Your task to perform on an android device: open app "Nova Launcher" (install if not already installed), go to login, and select forgot password Image 0: 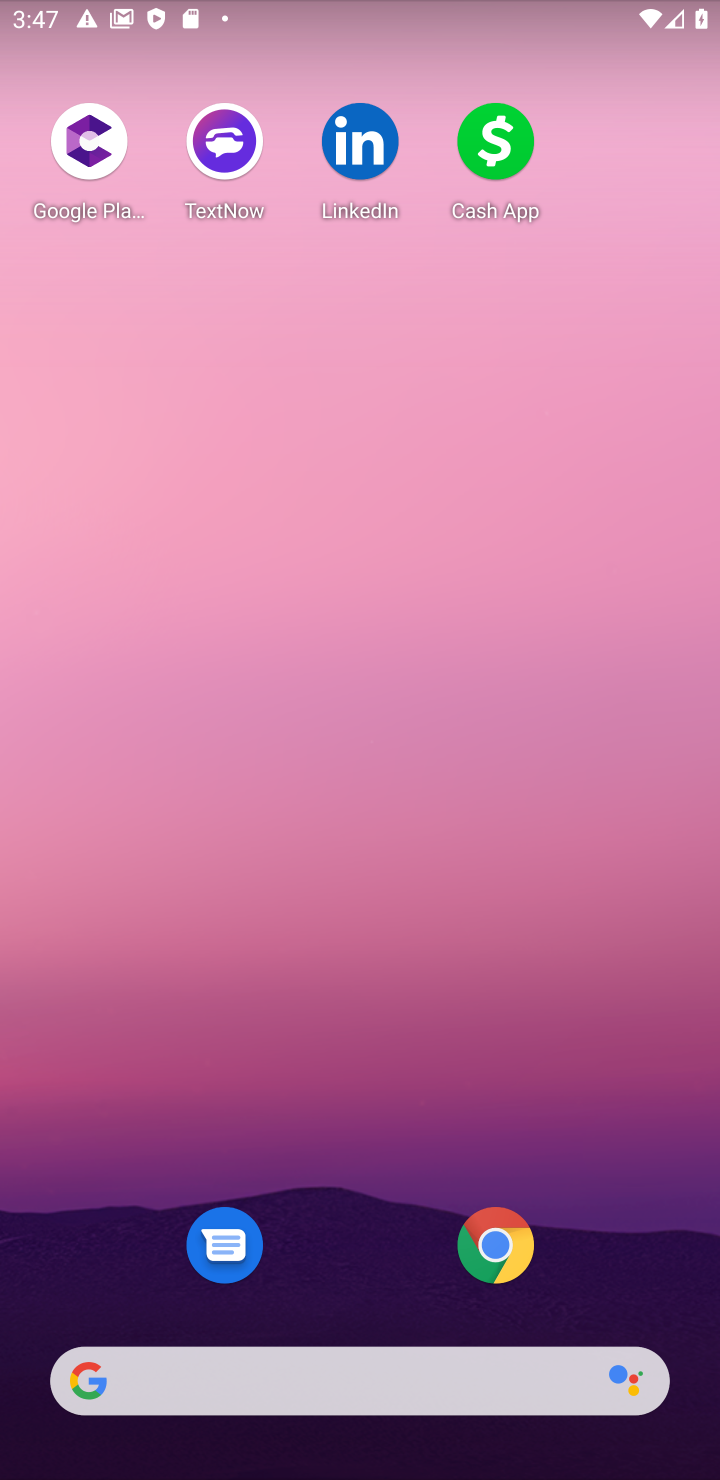
Step 0: press home button
Your task to perform on an android device: open app "Nova Launcher" (install if not already installed), go to login, and select forgot password Image 1: 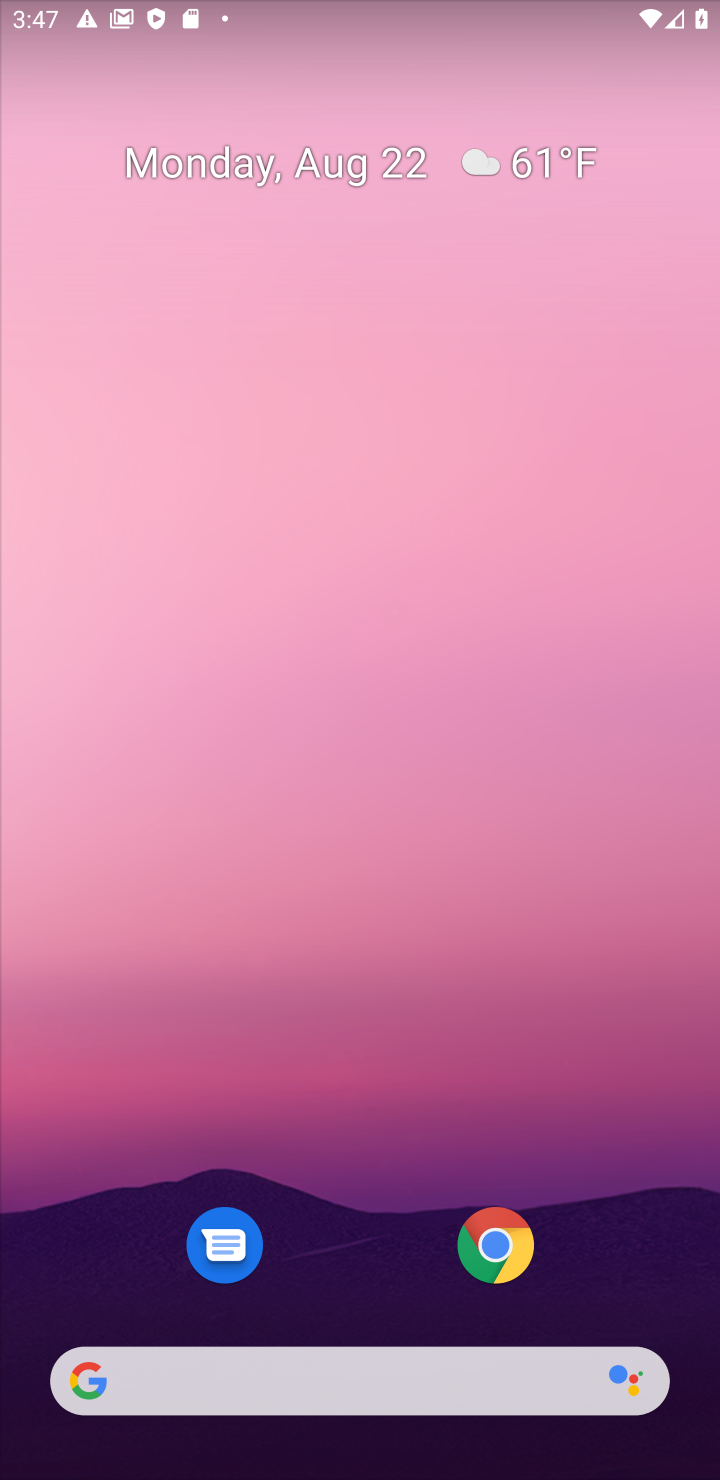
Step 1: drag from (644, 1276) to (679, 364)
Your task to perform on an android device: open app "Nova Launcher" (install if not already installed), go to login, and select forgot password Image 2: 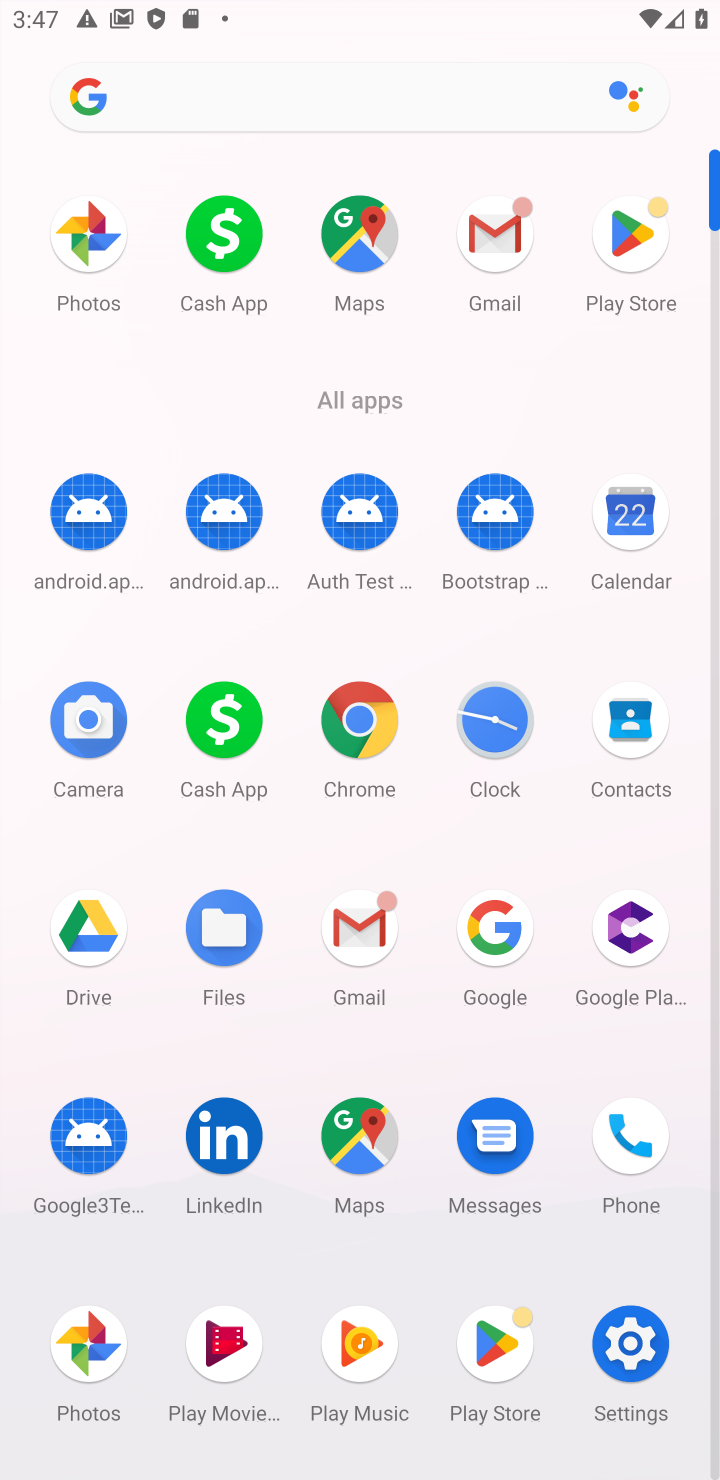
Step 2: click (625, 234)
Your task to perform on an android device: open app "Nova Launcher" (install if not already installed), go to login, and select forgot password Image 3: 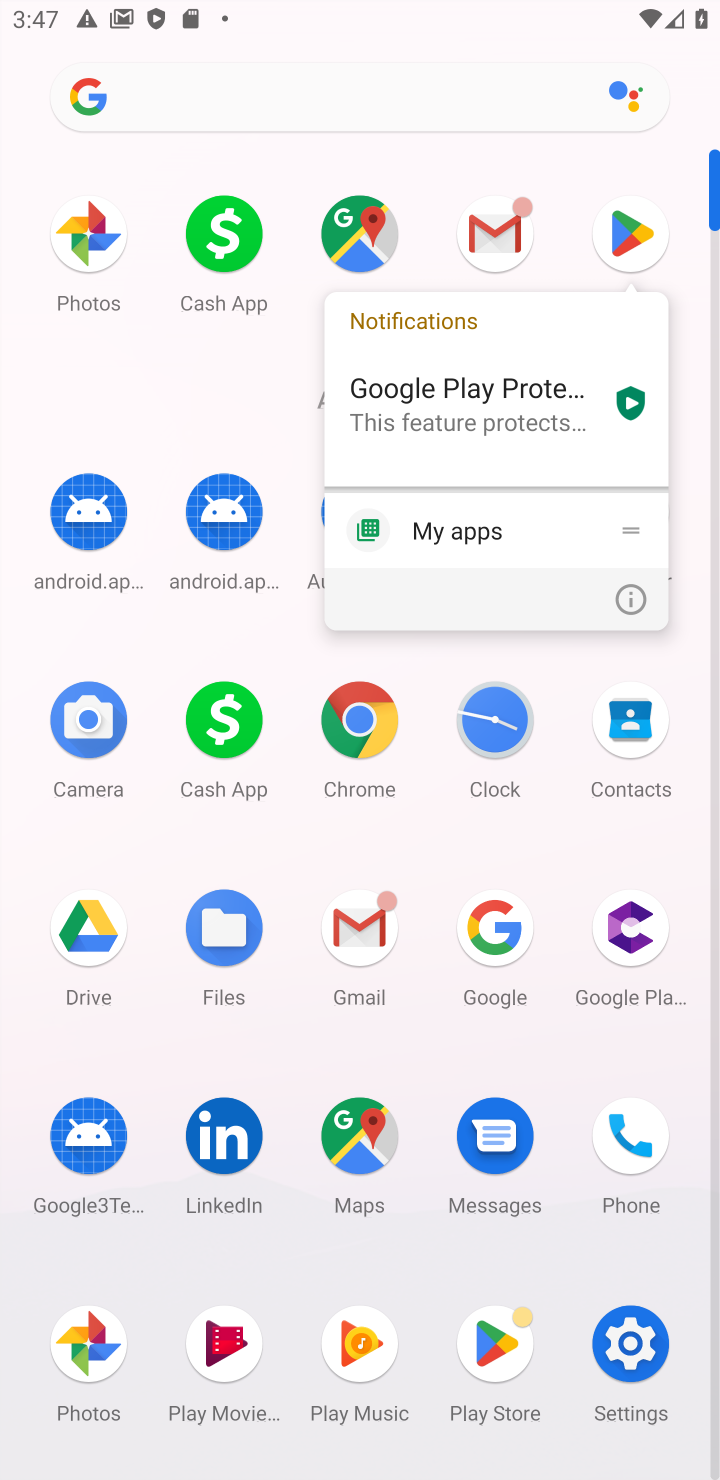
Step 3: click (615, 219)
Your task to perform on an android device: open app "Nova Launcher" (install if not already installed), go to login, and select forgot password Image 4: 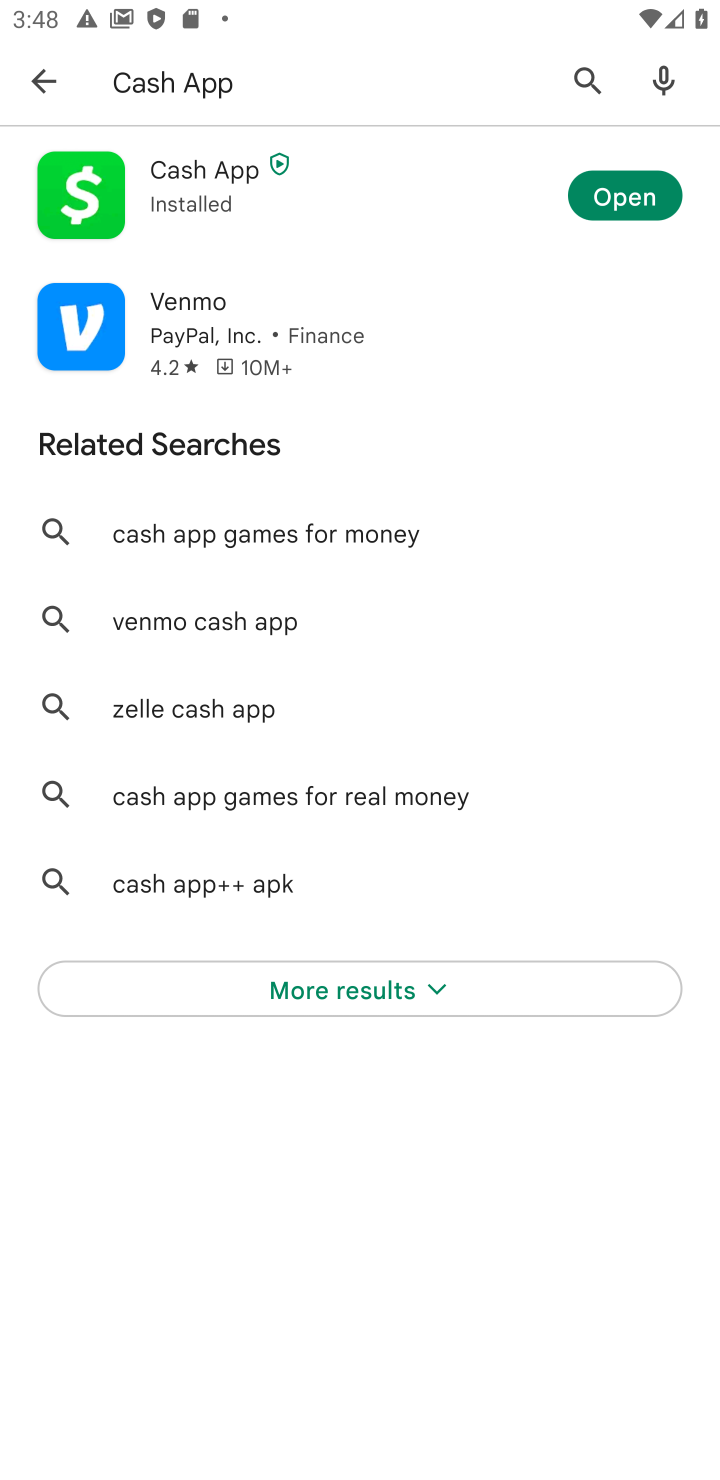
Step 4: press back button
Your task to perform on an android device: open app "Nova Launcher" (install if not already installed), go to login, and select forgot password Image 5: 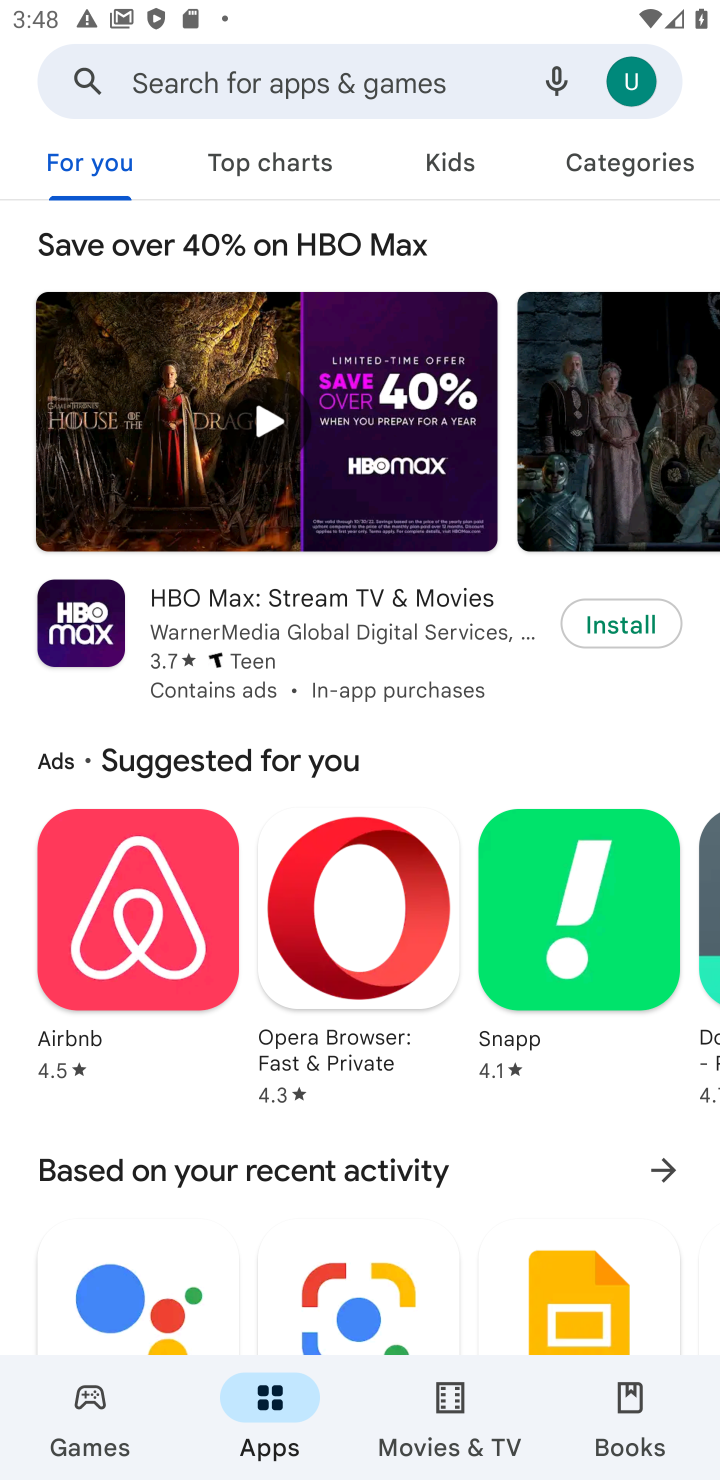
Step 5: click (215, 71)
Your task to perform on an android device: open app "Nova Launcher" (install if not already installed), go to login, and select forgot password Image 6: 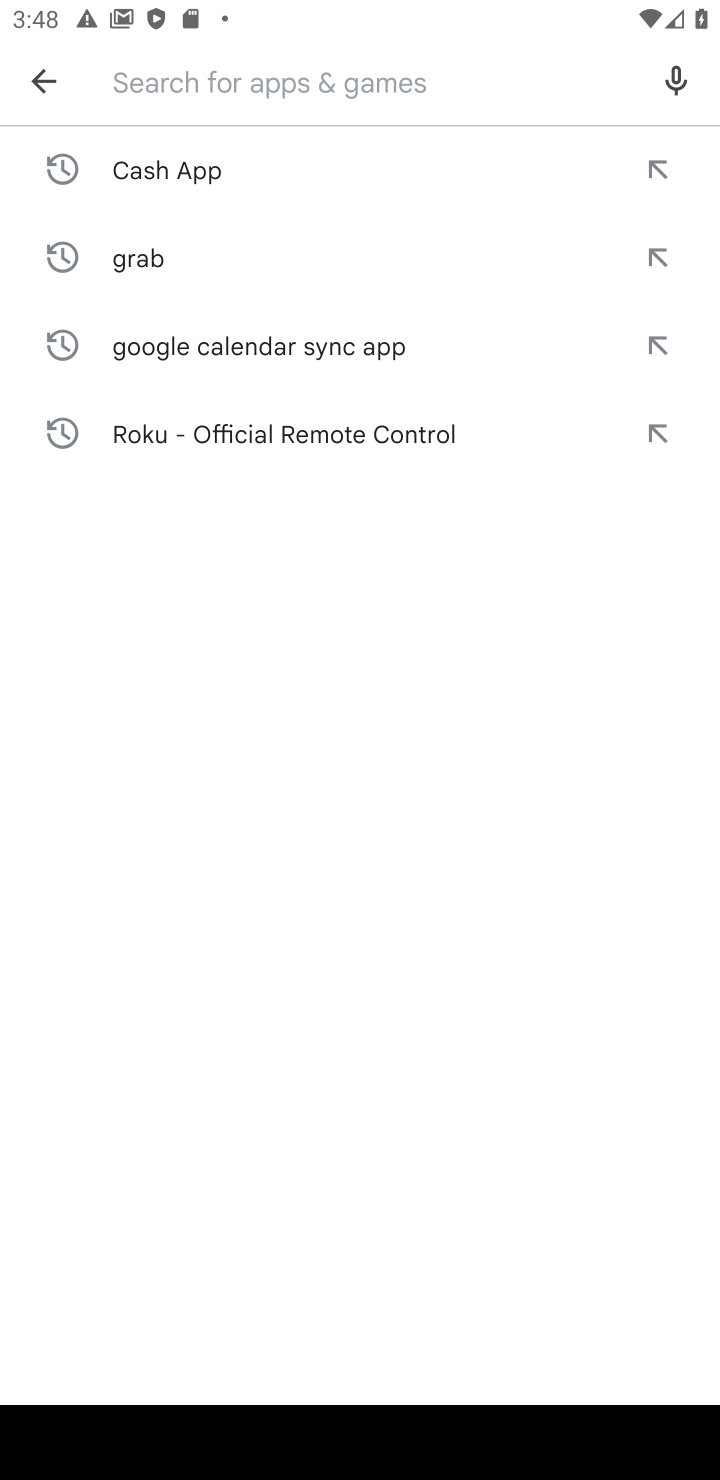
Step 6: type "Nova Launcher"
Your task to perform on an android device: open app "Nova Launcher" (install if not already installed), go to login, and select forgot password Image 7: 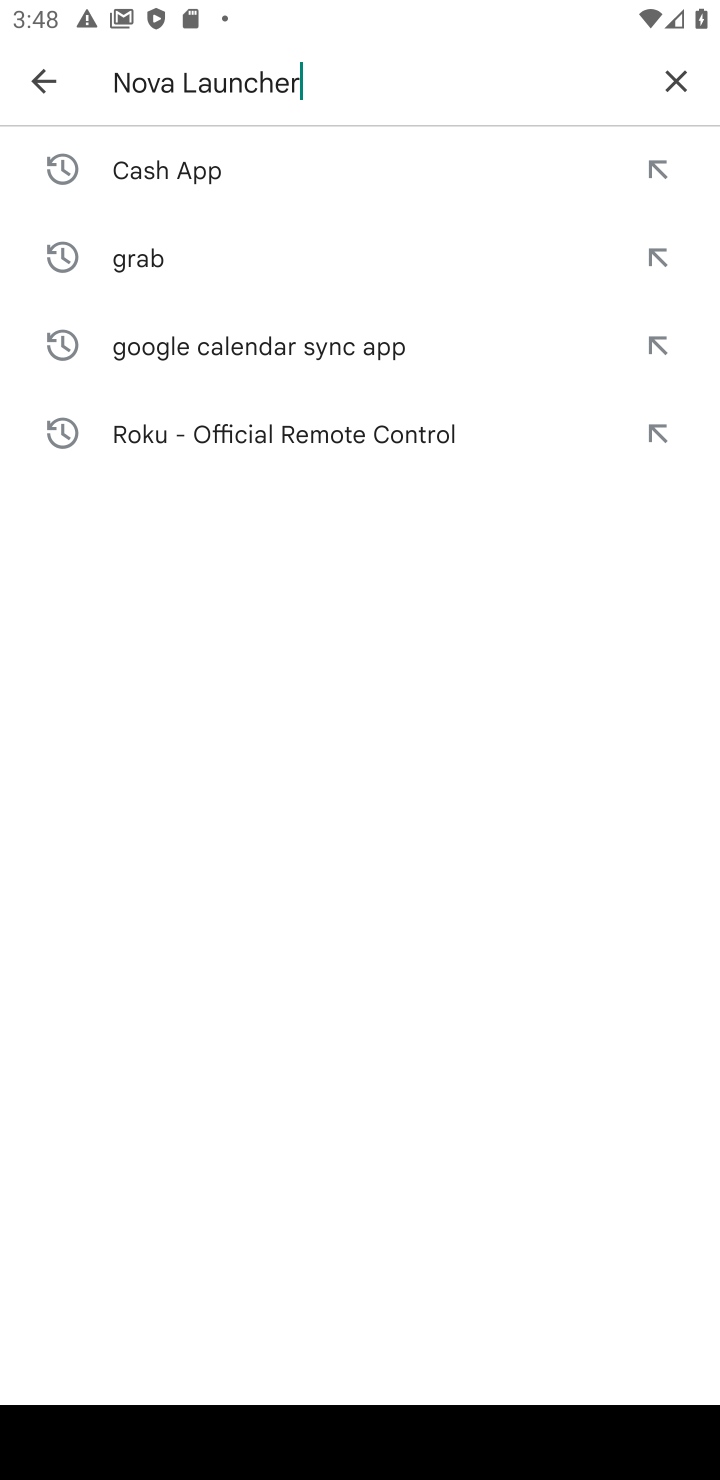
Step 7: press enter
Your task to perform on an android device: open app "Nova Launcher" (install if not already installed), go to login, and select forgot password Image 8: 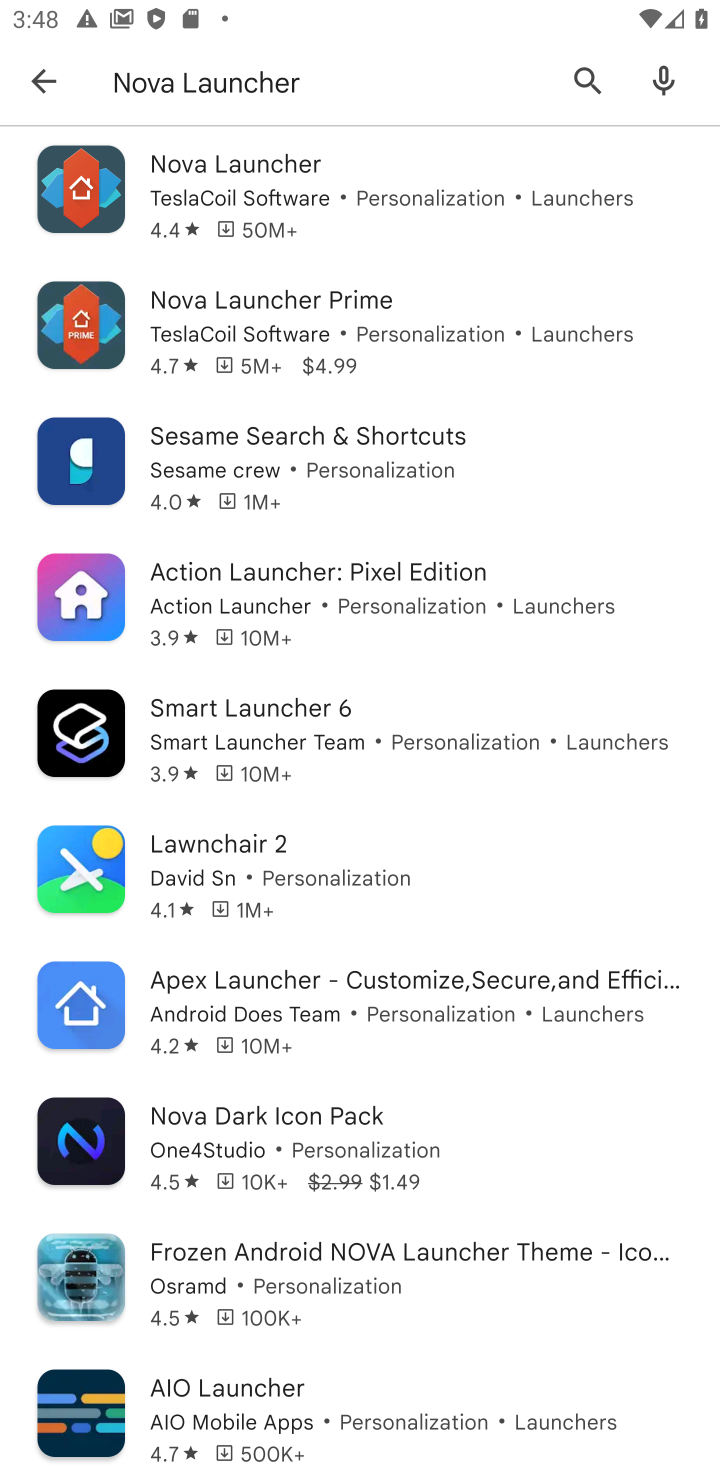
Step 8: task complete